Your task to perform on an android device: Open sound settings Image 0: 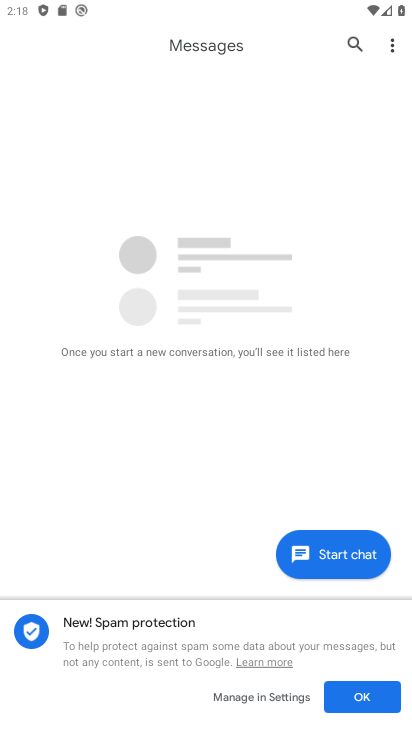
Step 0: press home button
Your task to perform on an android device: Open sound settings Image 1: 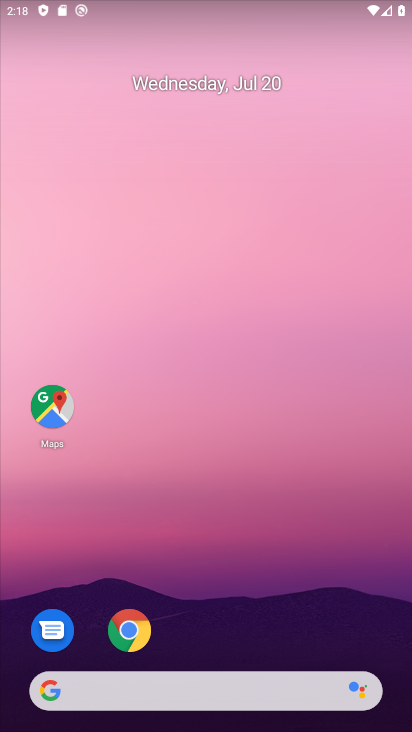
Step 1: drag from (208, 612) to (147, 27)
Your task to perform on an android device: Open sound settings Image 2: 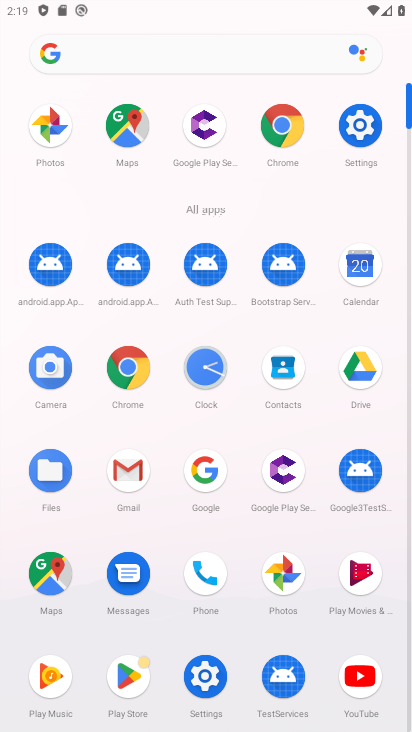
Step 2: click (364, 118)
Your task to perform on an android device: Open sound settings Image 3: 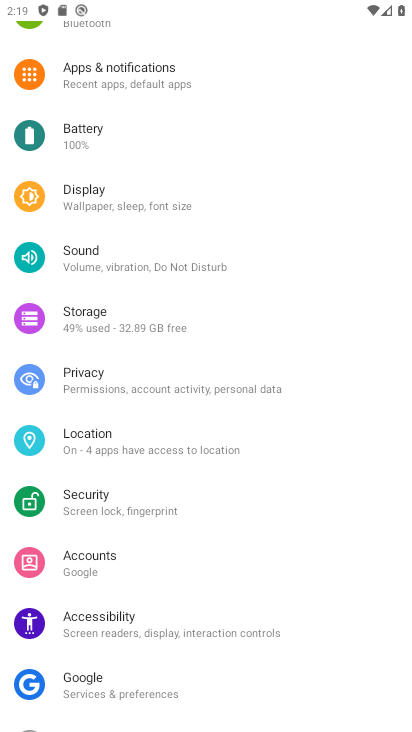
Step 3: click (98, 273)
Your task to perform on an android device: Open sound settings Image 4: 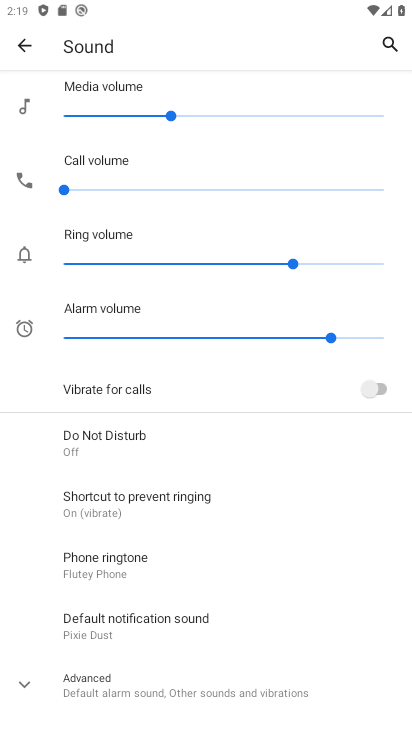
Step 4: task complete